Your task to perform on an android device: Open the web browser Image 0: 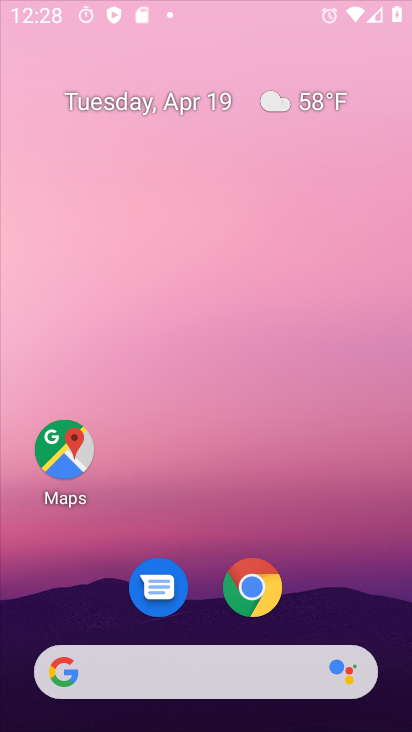
Step 0: click (375, 70)
Your task to perform on an android device: Open the web browser Image 1: 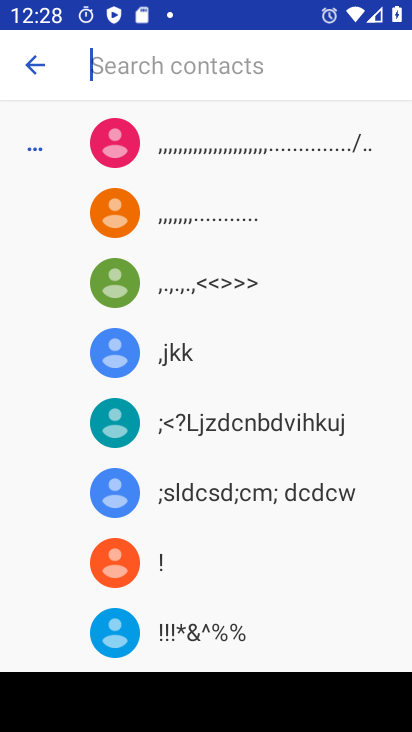
Step 1: press home button
Your task to perform on an android device: Open the web browser Image 2: 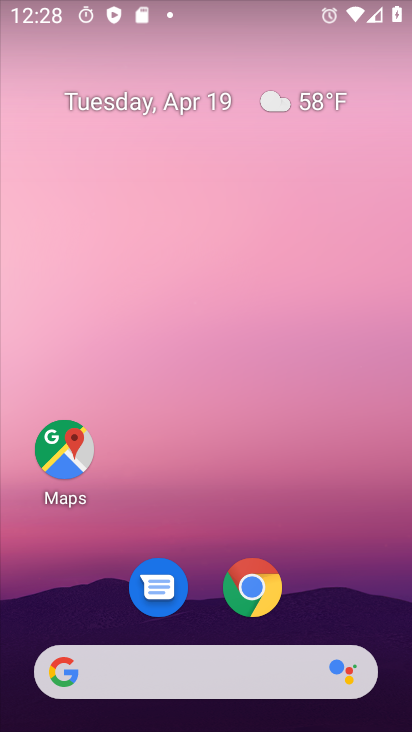
Step 2: drag from (349, 479) to (366, 128)
Your task to perform on an android device: Open the web browser Image 3: 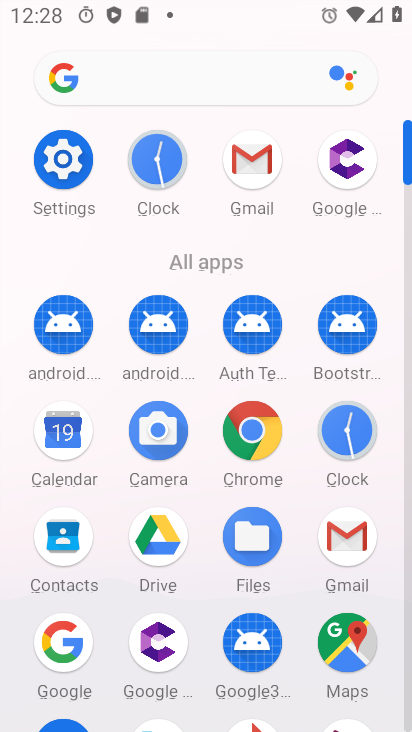
Step 3: click (246, 436)
Your task to perform on an android device: Open the web browser Image 4: 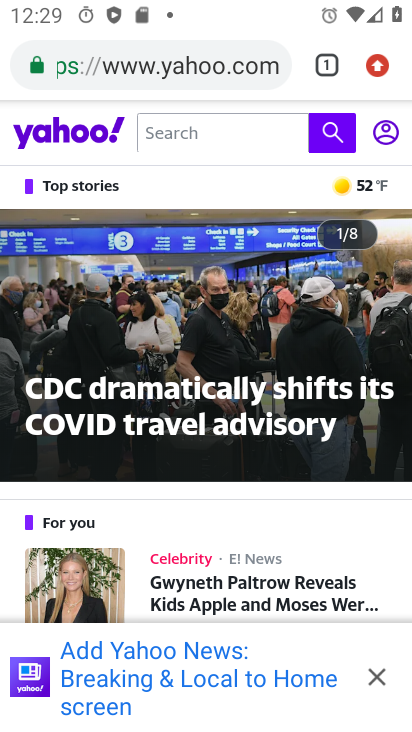
Step 4: click (324, 68)
Your task to perform on an android device: Open the web browser Image 5: 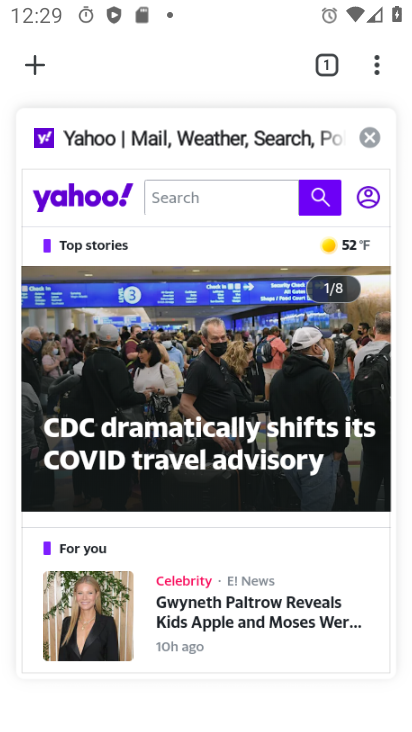
Step 5: click (36, 69)
Your task to perform on an android device: Open the web browser Image 6: 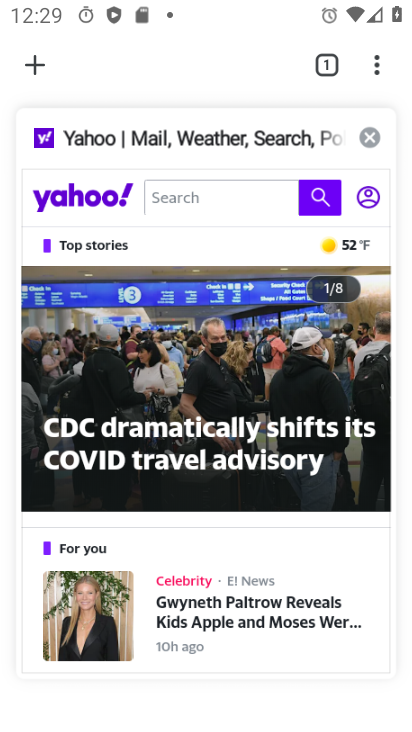
Step 6: click (35, 68)
Your task to perform on an android device: Open the web browser Image 7: 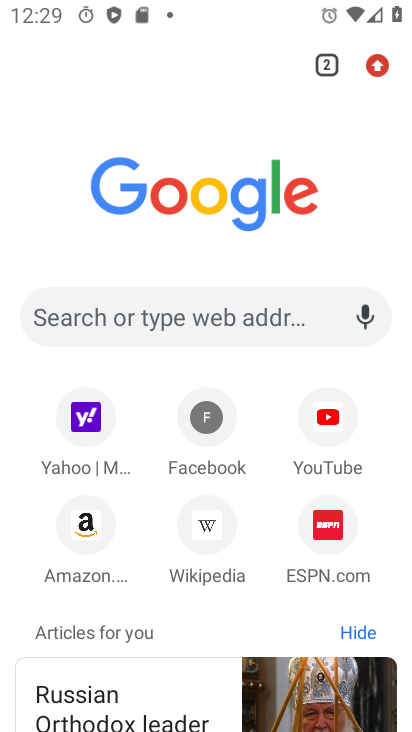
Step 7: task complete